Your task to perform on an android device: clear all cookies in the chrome app Image 0: 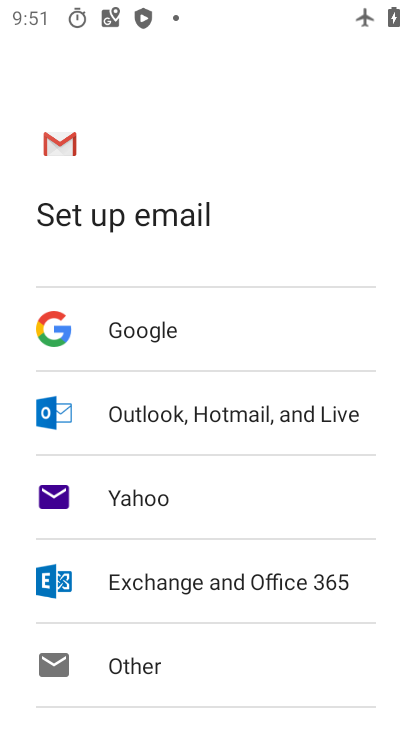
Step 0: press home button
Your task to perform on an android device: clear all cookies in the chrome app Image 1: 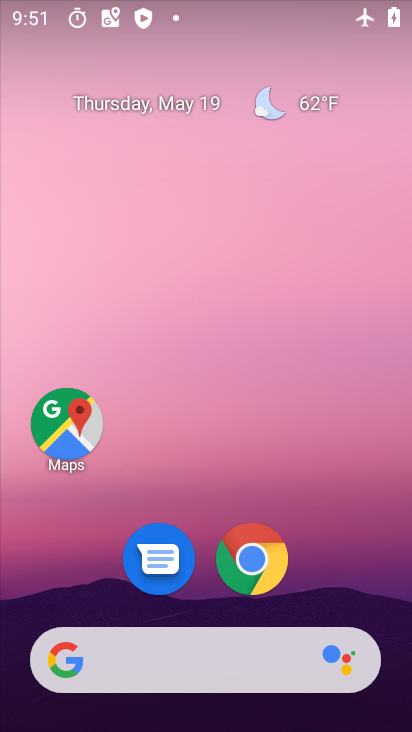
Step 1: click (248, 562)
Your task to perform on an android device: clear all cookies in the chrome app Image 2: 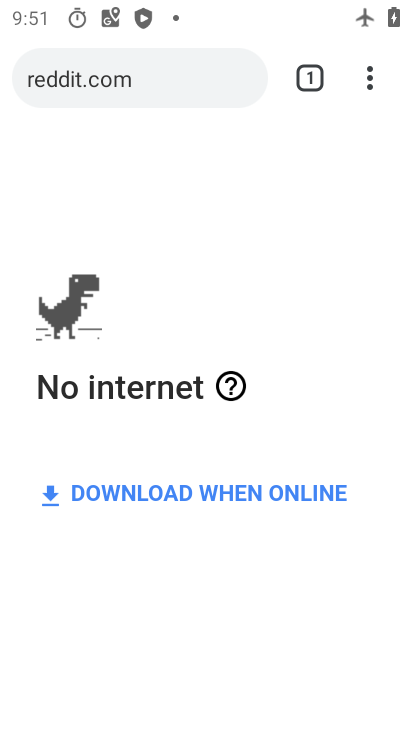
Step 2: drag from (371, 64) to (111, 437)
Your task to perform on an android device: clear all cookies in the chrome app Image 3: 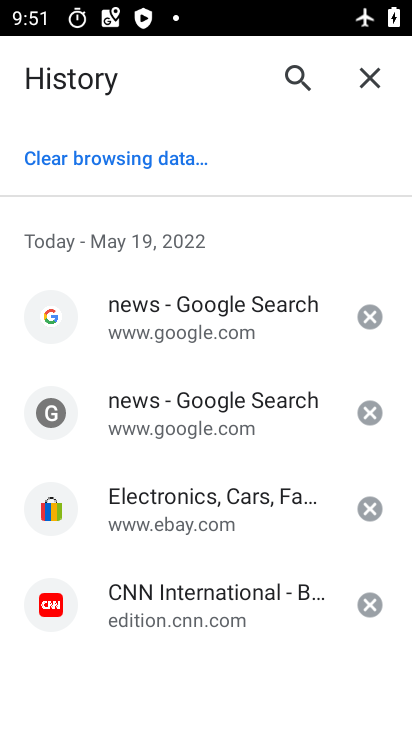
Step 3: click (148, 153)
Your task to perform on an android device: clear all cookies in the chrome app Image 4: 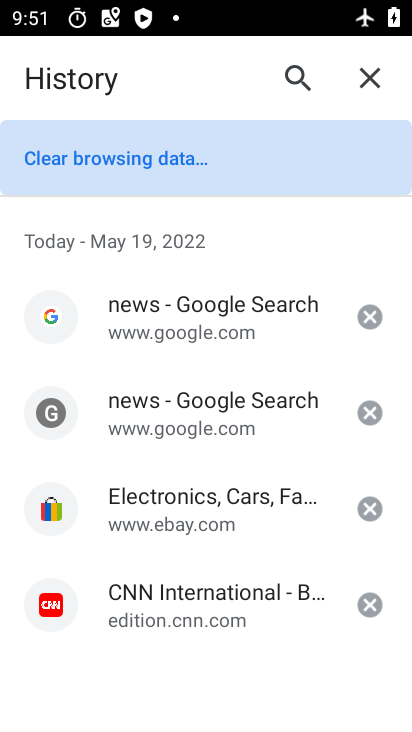
Step 4: click (148, 153)
Your task to perform on an android device: clear all cookies in the chrome app Image 5: 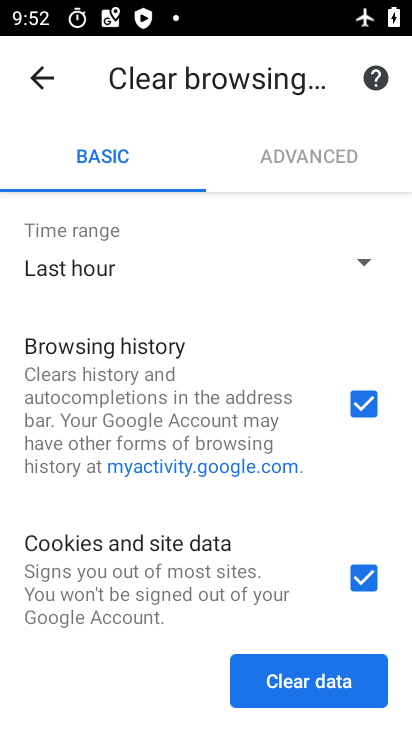
Step 5: drag from (301, 541) to (301, 162)
Your task to perform on an android device: clear all cookies in the chrome app Image 6: 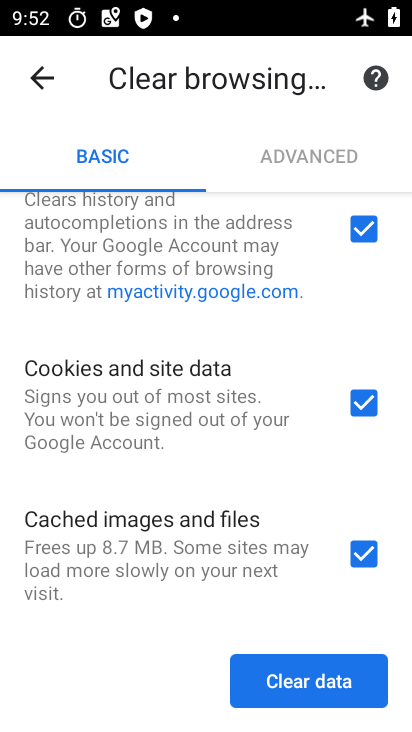
Step 6: drag from (262, 274) to (215, 625)
Your task to perform on an android device: clear all cookies in the chrome app Image 7: 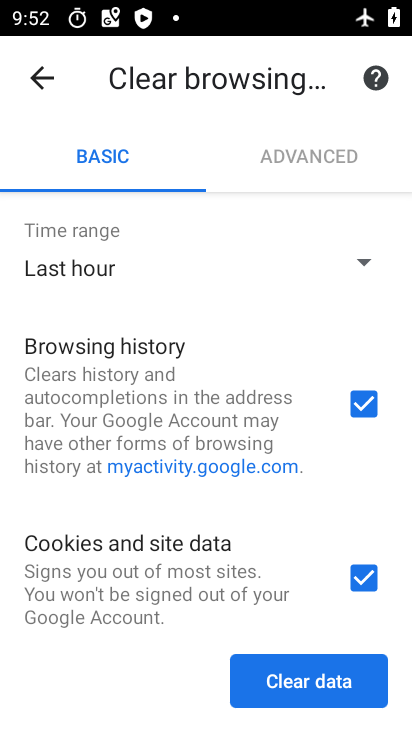
Step 7: click (323, 247)
Your task to perform on an android device: clear all cookies in the chrome app Image 8: 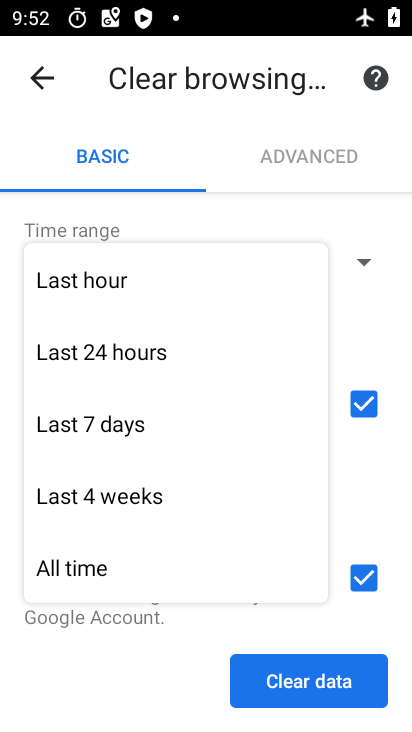
Step 8: click (130, 567)
Your task to perform on an android device: clear all cookies in the chrome app Image 9: 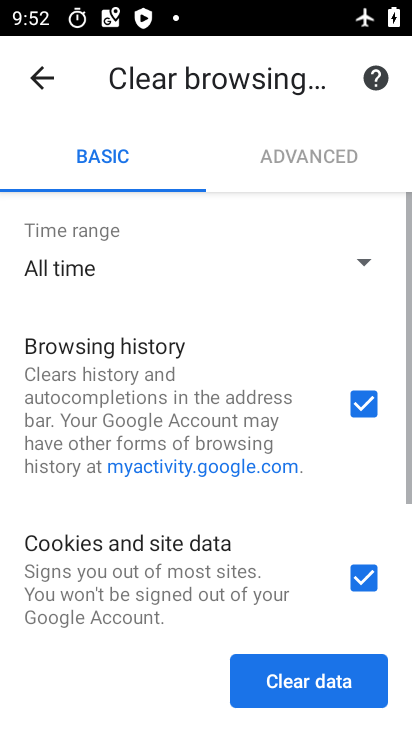
Step 9: click (332, 683)
Your task to perform on an android device: clear all cookies in the chrome app Image 10: 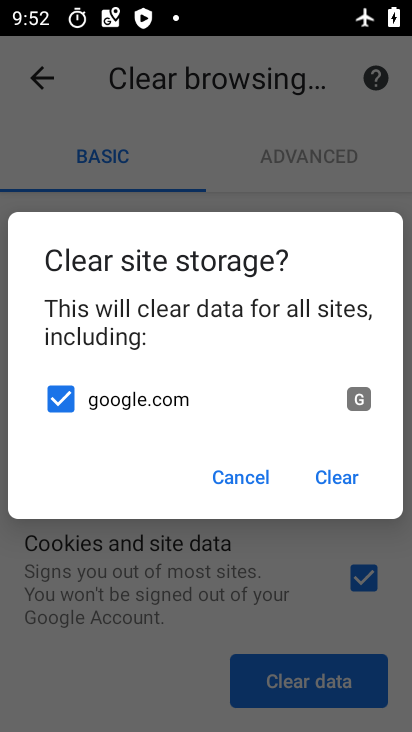
Step 10: click (331, 477)
Your task to perform on an android device: clear all cookies in the chrome app Image 11: 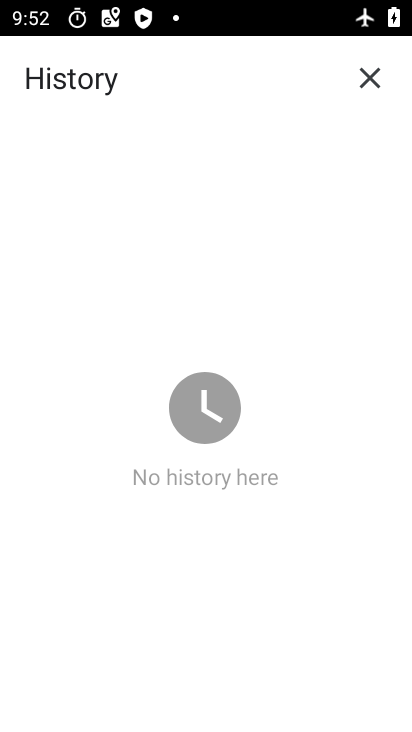
Step 11: task complete